Your task to perform on an android device: turn on priority inbox in the gmail app Image 0: 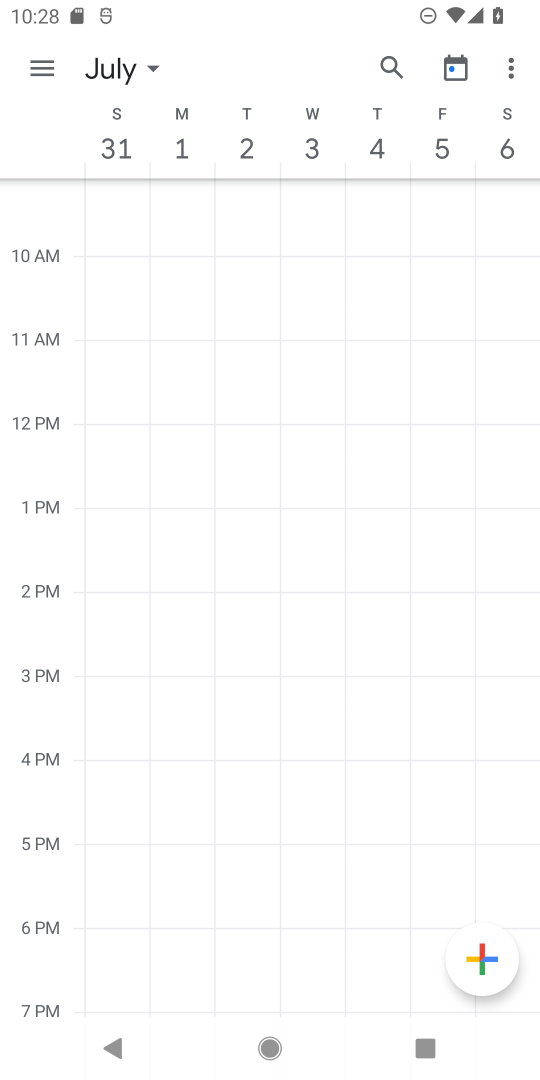
Step 0: press home button
Your task to perform on an android device: turn on priority inbox in the gmail app Image 1: 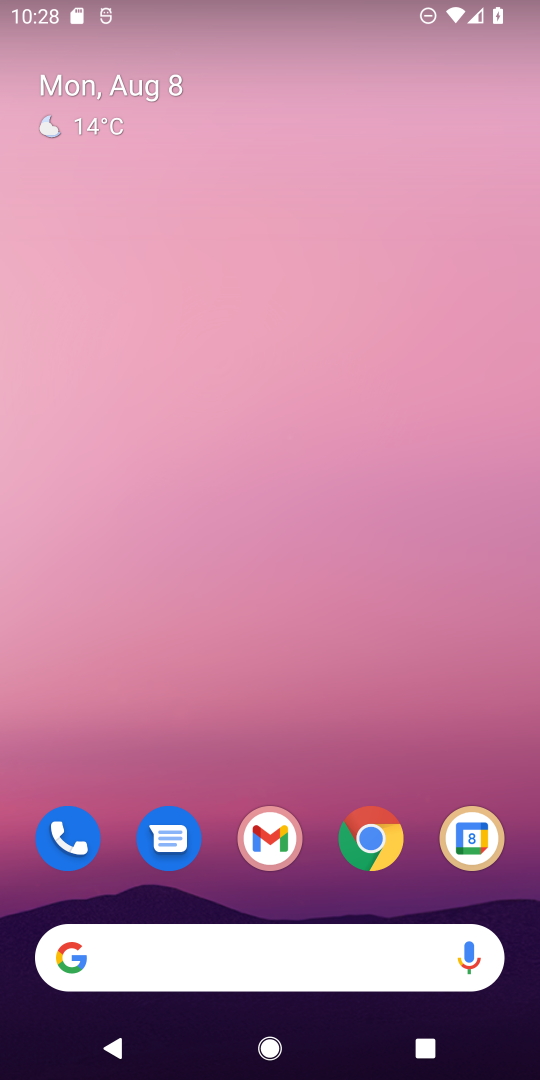
Step 1: drag from (324, 887) to (299, 4)
Your task to perform on an android device: turn on priority inbox in the gmail app Image 2: 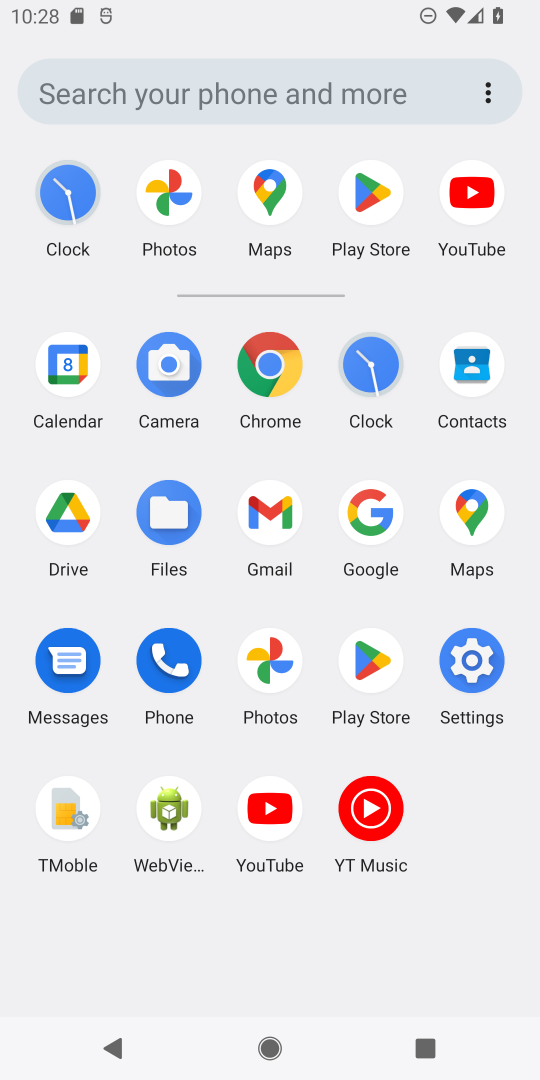
Step 2: click (274, 507)
Your task to perform on an android device: turn on priority inbox in the gmail app Image 3: 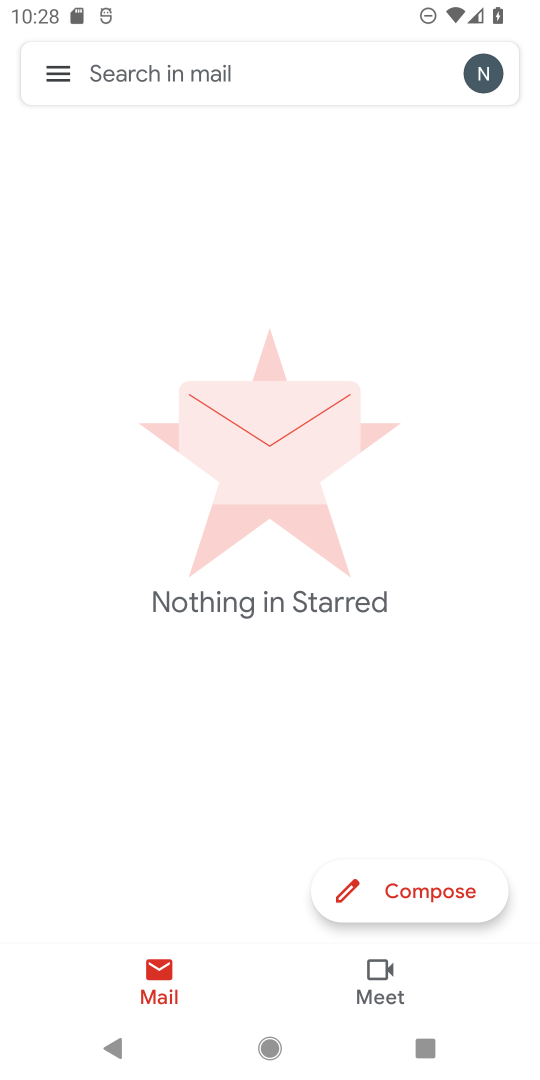
Step 3: click (61, 65)
Your task to perform on an android device: turn on priority inbox in the gmail app Image 4: 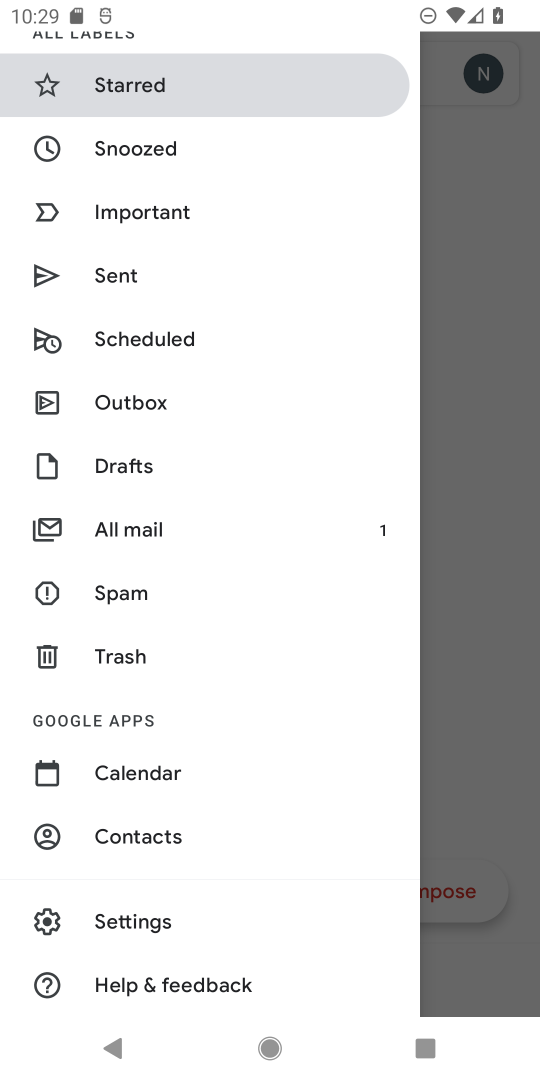
Step 4: drag from (290, 301) to (222, 844)
Your task to perform on an android device: turn on priority inbox in the gmail app Image 5: 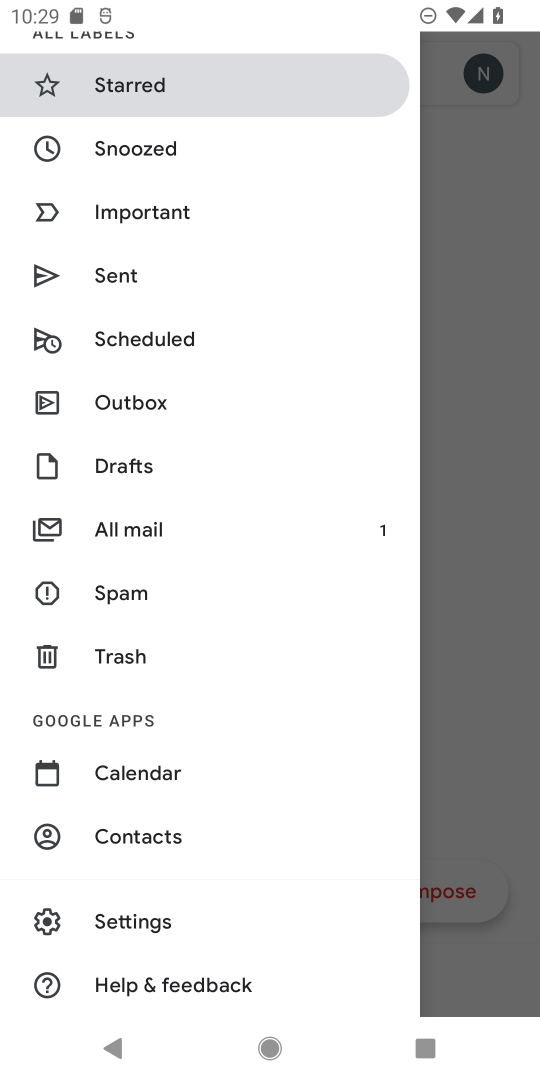
Step 5: drag from (290, 379) to (252, 878)
Your task to perform on an android device: turn on priority inbox in the gmail app Image 6: 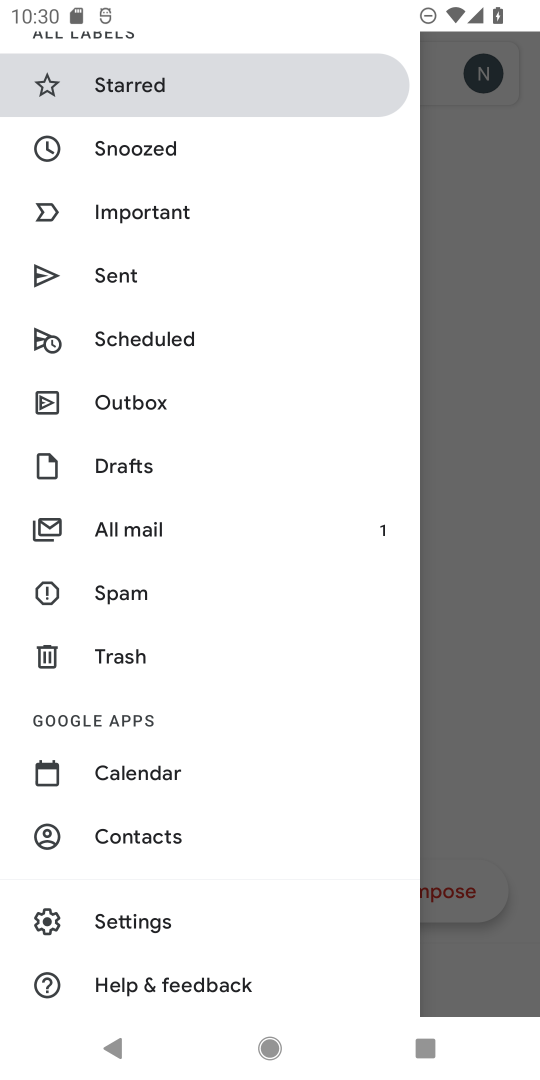
Step 6: drag from (282, 325) to (269, 954)
Your task to perform on an android device: turn on priority inbox in the gmail app Image 7: 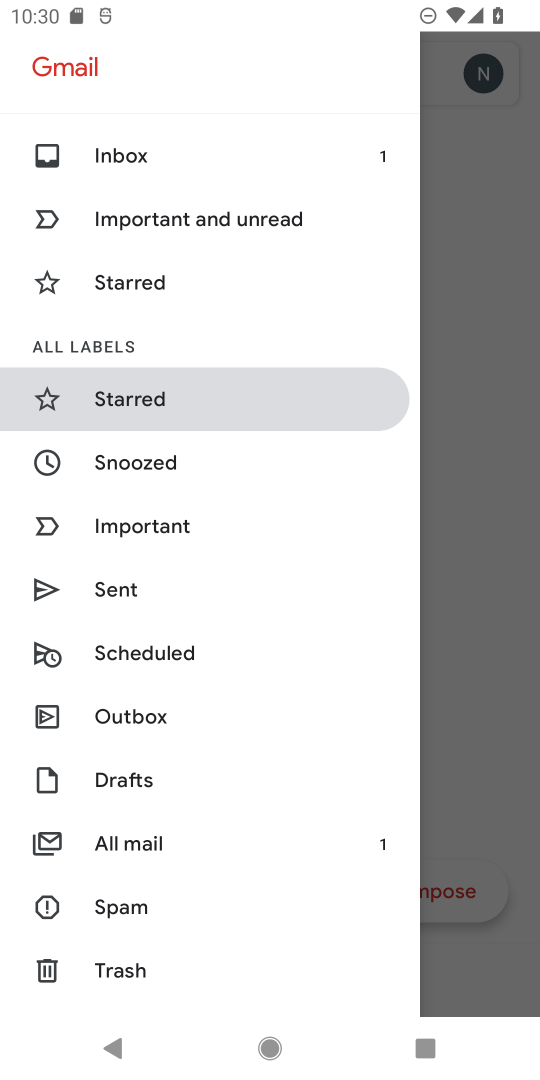
Step 7: click (461, 736)
Your task to perform on an android device: turn on priority inbox in the gmail app Image 8: 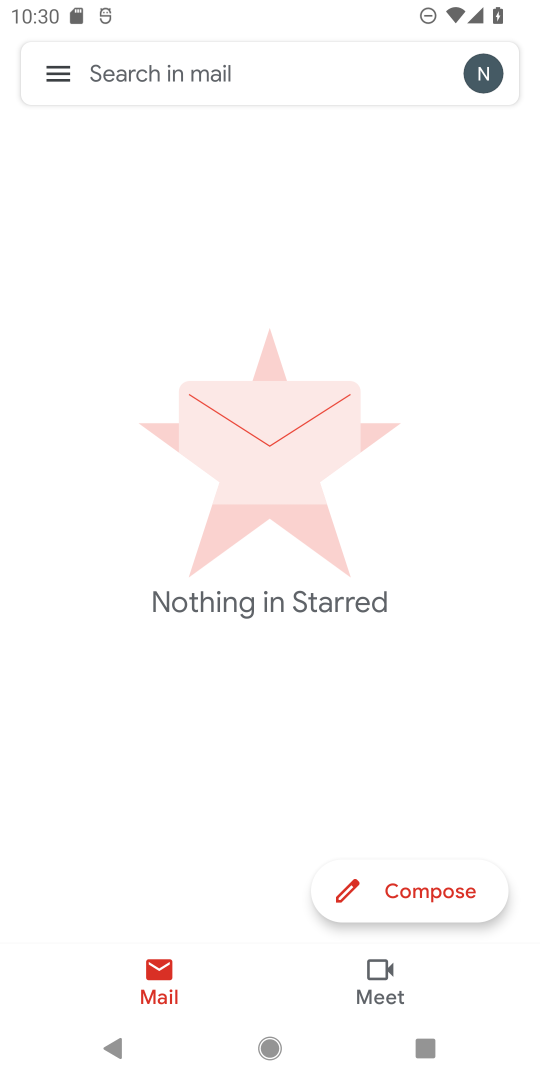
Step 8: click (64, 71)
Your task to perform on an android device: turn on priority inbox in the gmail app Image 9: 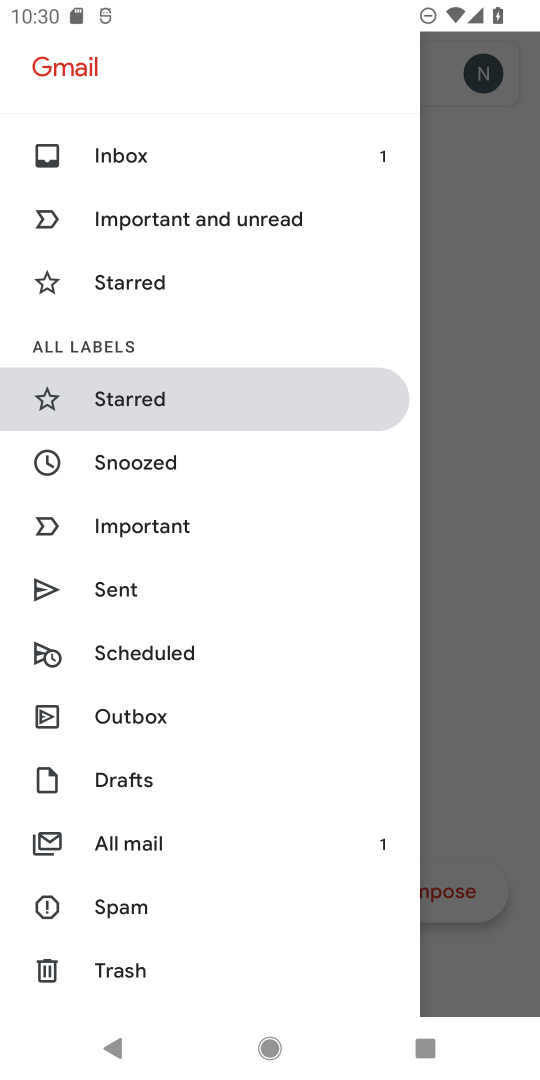
Step 9: drag from (289, 910) to (292, 168)
Your task to perform on an android device: turn on priority inbox in the gmail app Image 10: 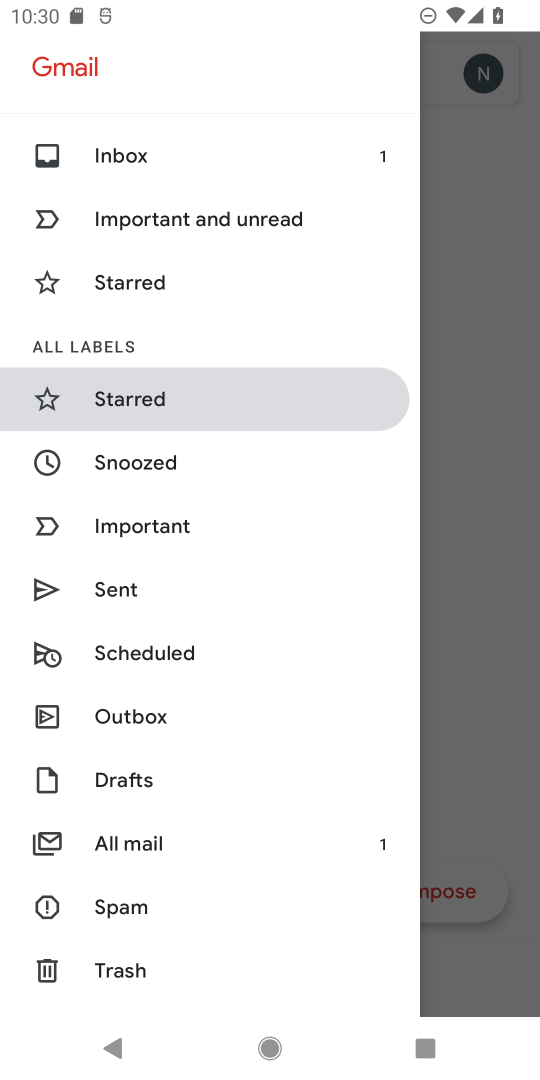
Step 10: drag from (267, 883) to (290, 705)
Your task to perform on an android device: turn on priority inbox in the gmail app Image 11: 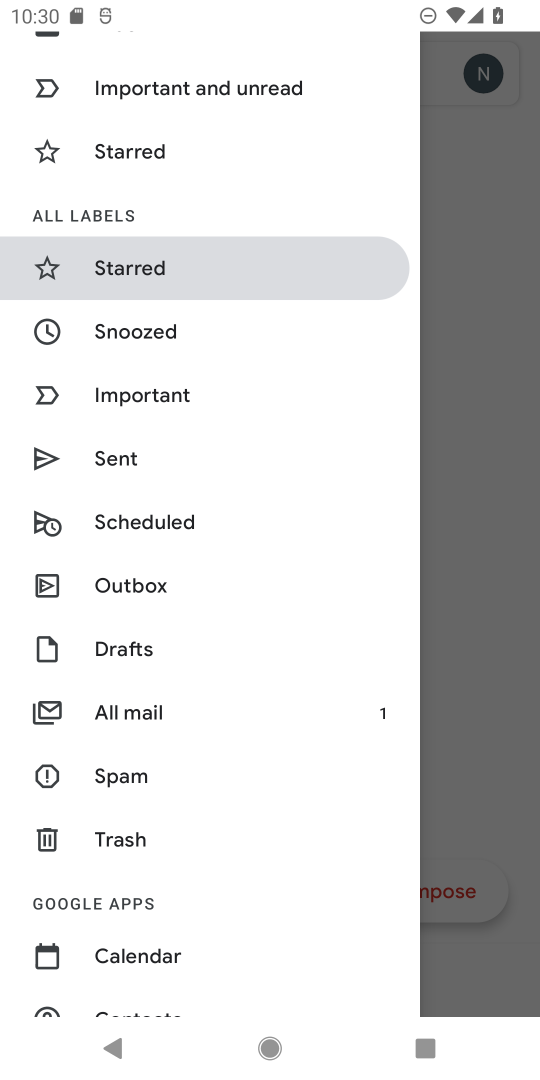
Step 11: drag from (323, 850) to (303, 33)
Your task to perform on an android device: turn on priority inbox in the gmail app Image 12: 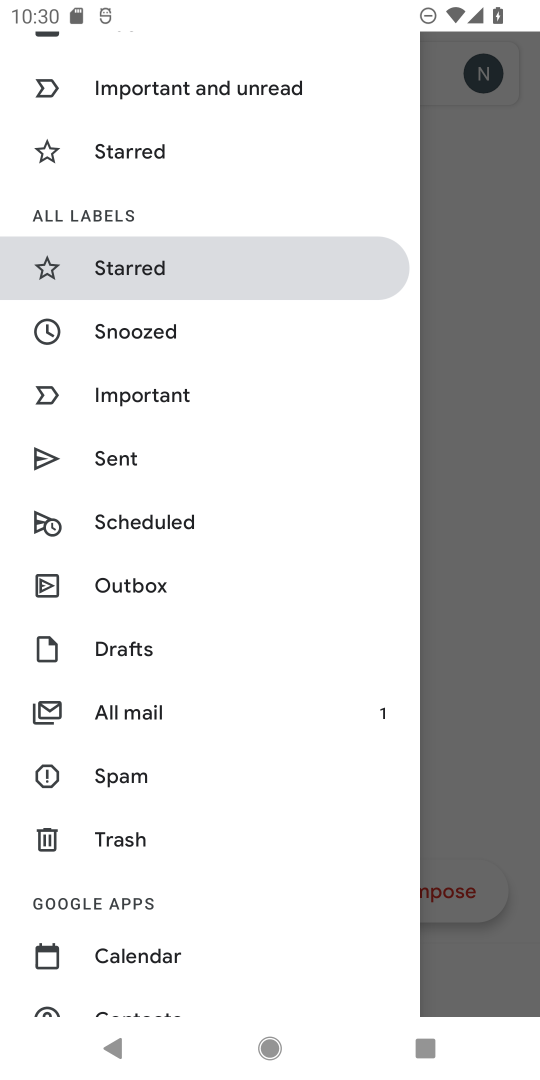
Step 12: drag from (297, 866) to (353, 246)
Your task to perform on an android device: turn on priority inbox in the gmail app Image 13: 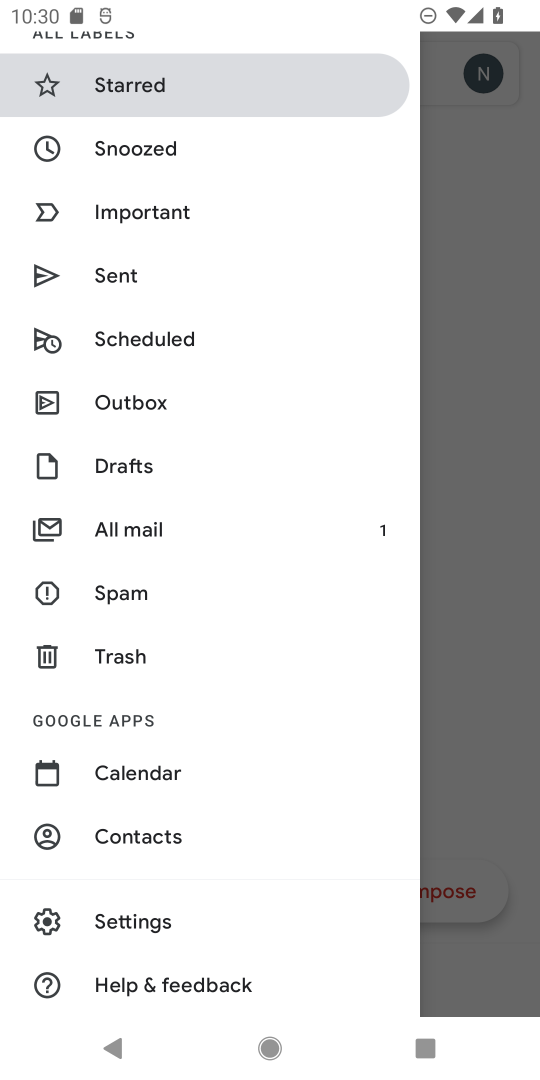
Step 13: click (122, 929)
Your task to perform on an android device: turn on priority inbox in the gmail app Image 14: 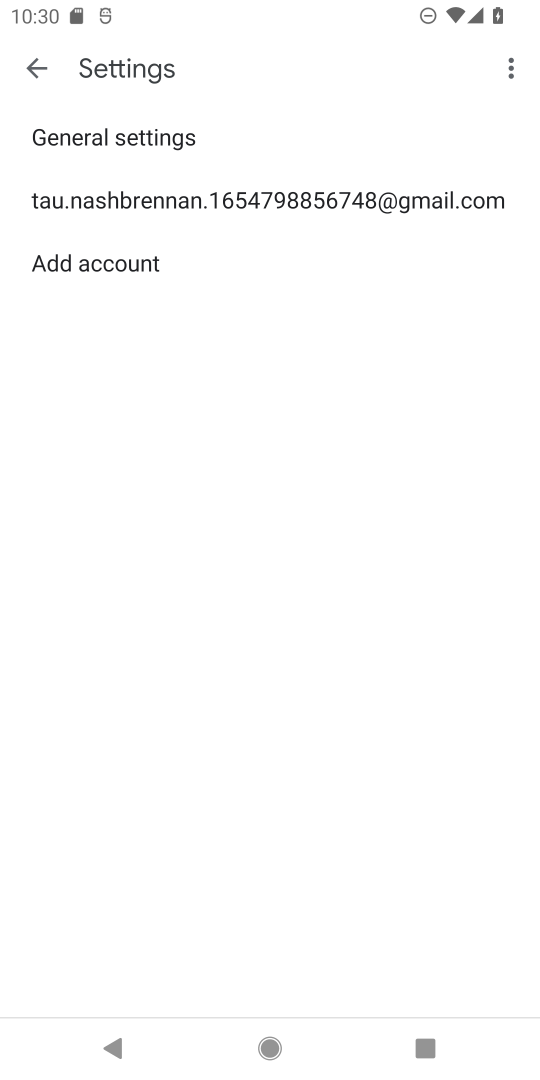
Step 14: click (278, 189)
Your task to perform on an android device: turn on priority inbox in the gmail app Image 15: 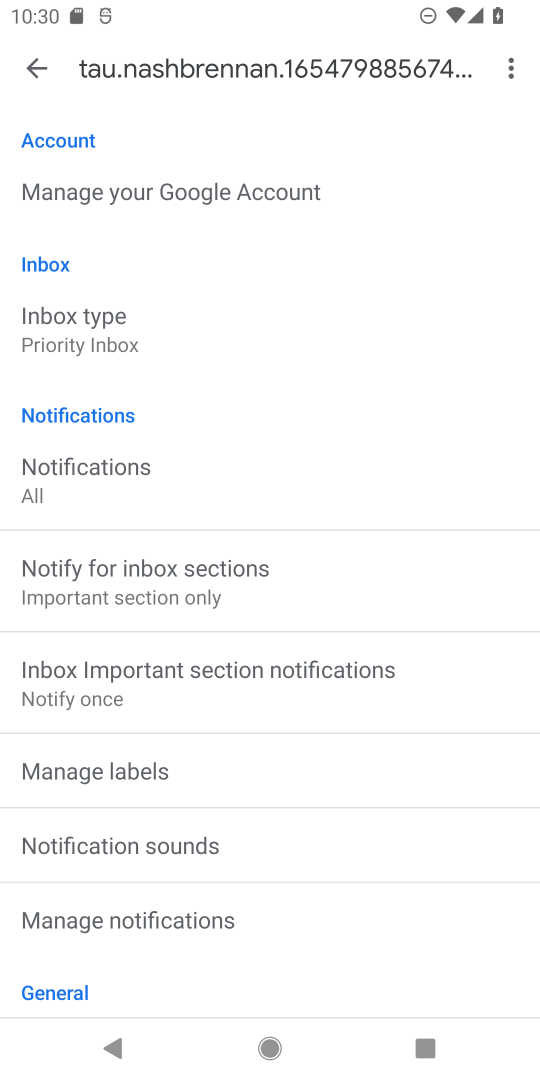
Step 15: click (91, 330)
Your task to perform on an android device: turn on priority inbox in the gmail app Image 16: 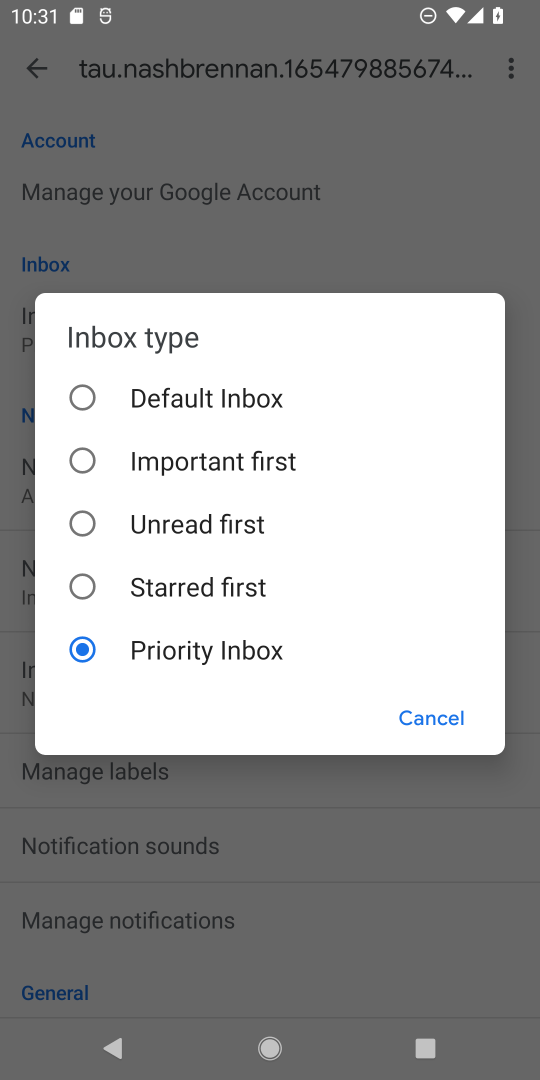
Step 16: click (441, 714)
Your task to perform on an android device: turn on priority inbox in the gmail app Image 17: 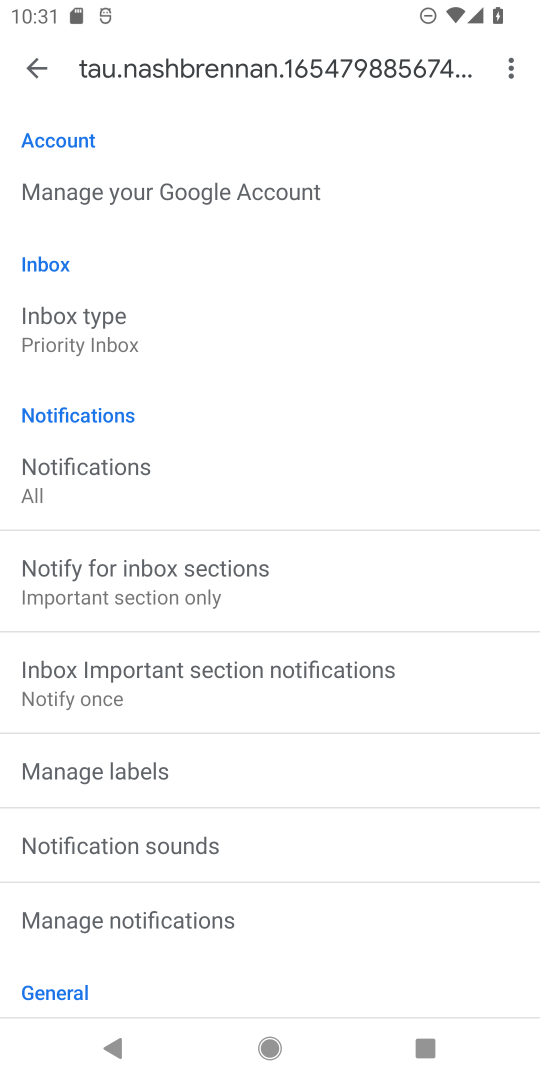
Step 17: task complete